Your task to perform on an android device: search for starred emails in the gmail app Image 0: 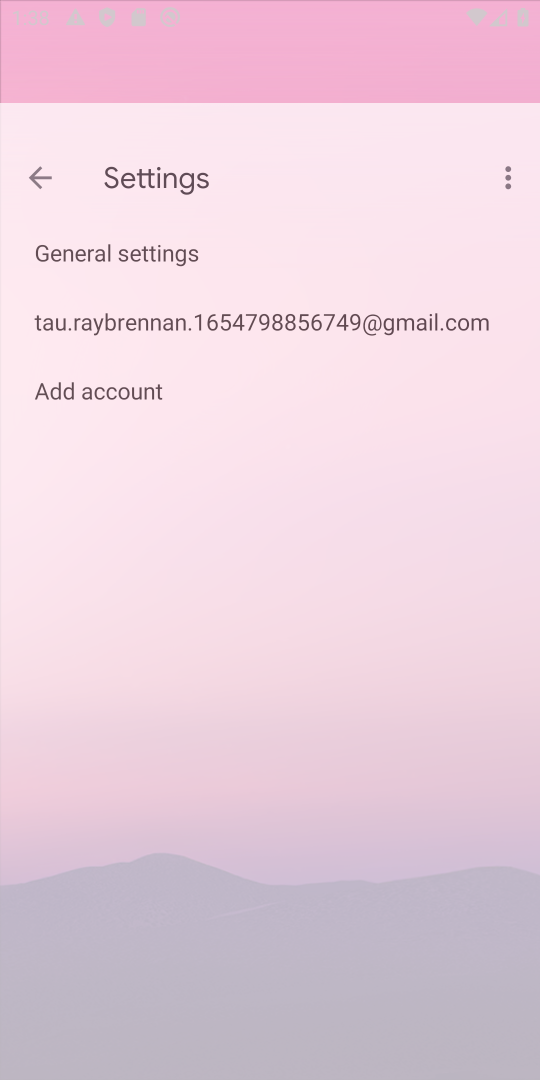
Step 0: press home button
Your task to perform on an android device: search for starred emails in the gmail app Image 1: 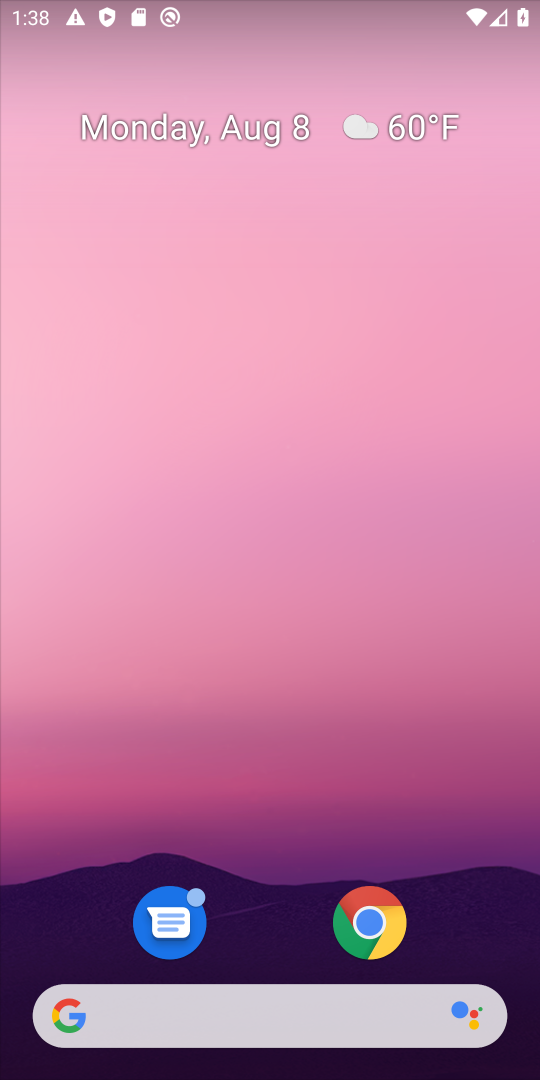
Step 1: drag from (475, 879) to (502, 132)
Your task to perform on an android device: search for starred emails in the gmail app Image 2: 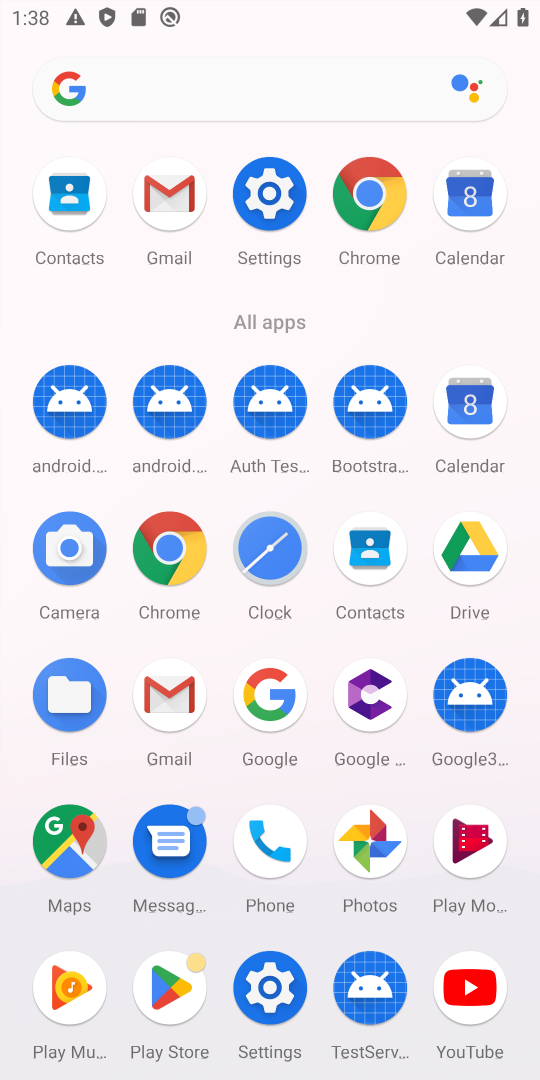
Step 2: click (179, 684)
Your task to perform on an android device: search for starred emails in the gmail app Image 3: 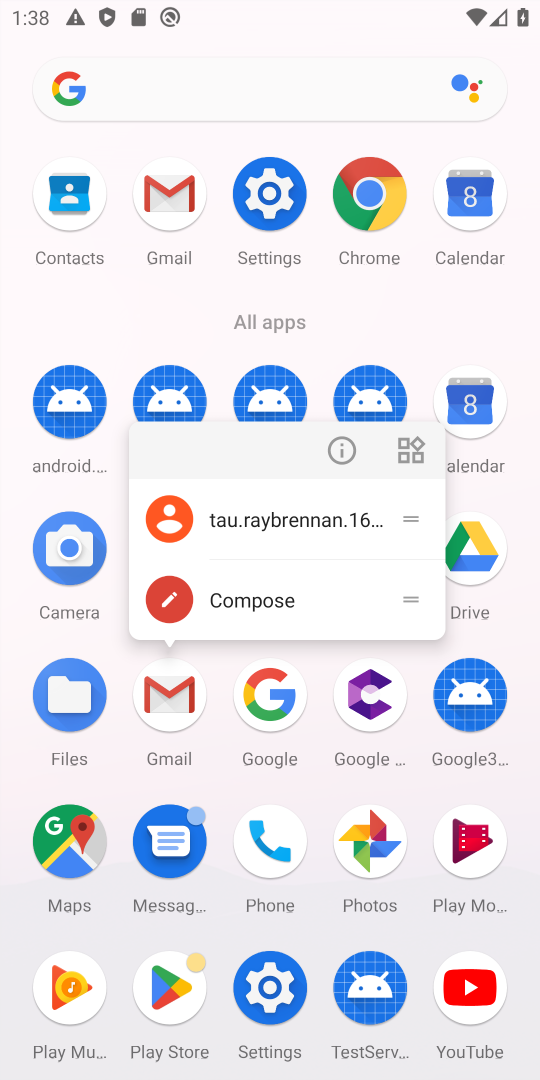
Step 3: click (172, 689)
Your task to perform on an android device: search for starred emails in the gmail app Image 4: 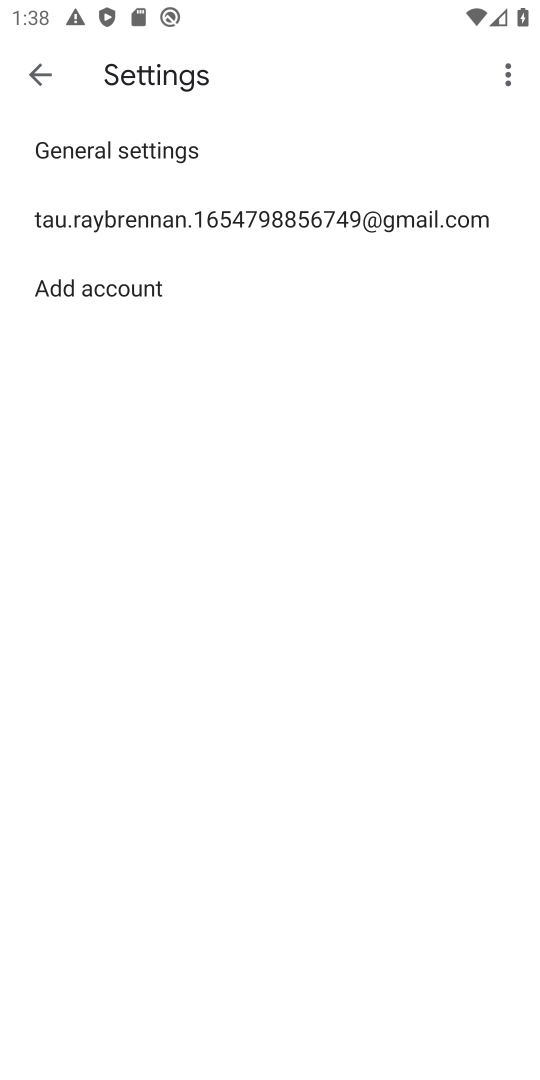
Step 4: click (24, 78)
Your task to perform on an android device: search for starred emails in the gmail app Image 5: 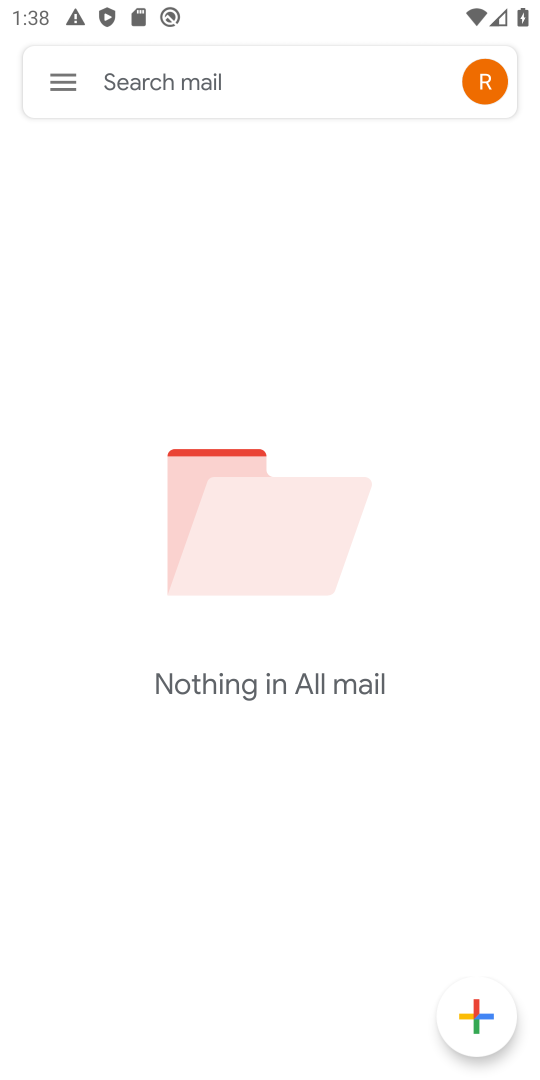
Step 5: click (72, 82)
Your task to perform on an android device: search for starred emails in the gmail app Image 6: 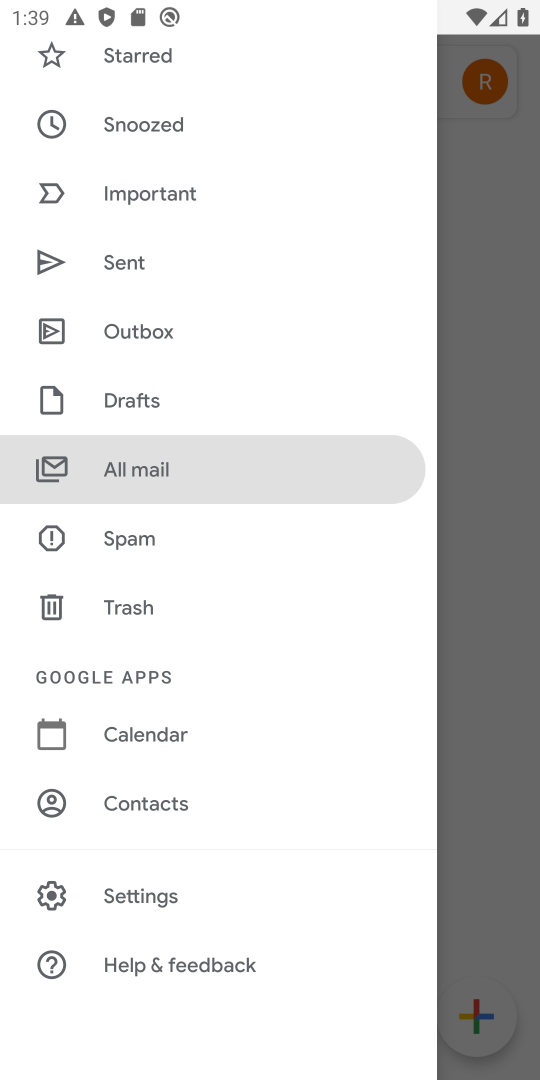
Step 6: click (129, 71)
Your task to perform on an android device: search for starred emails in the gmail app Image 7: 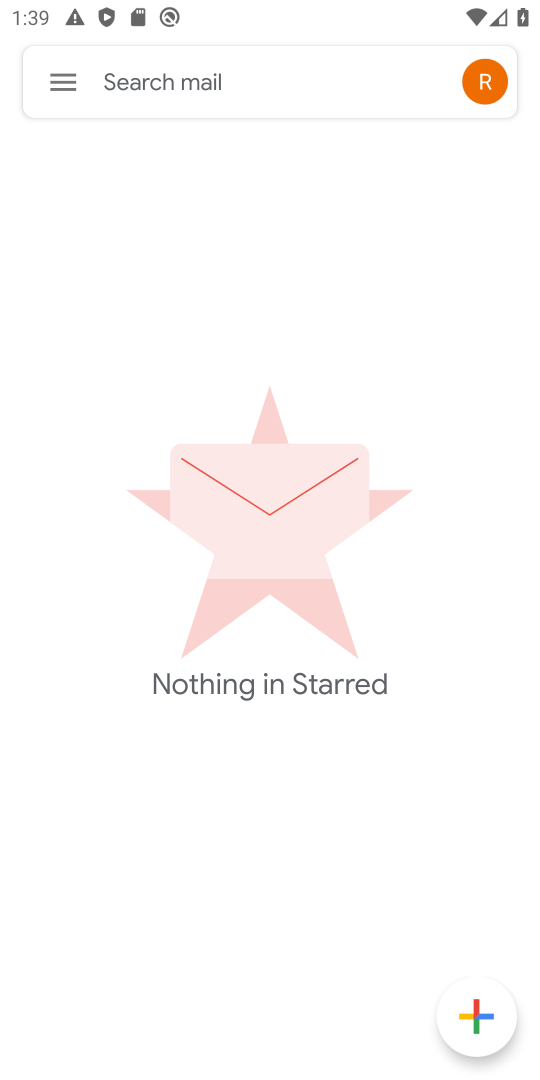
Step 7: task complete